Your task to perform on an android device: What's the weather today? Image 0: 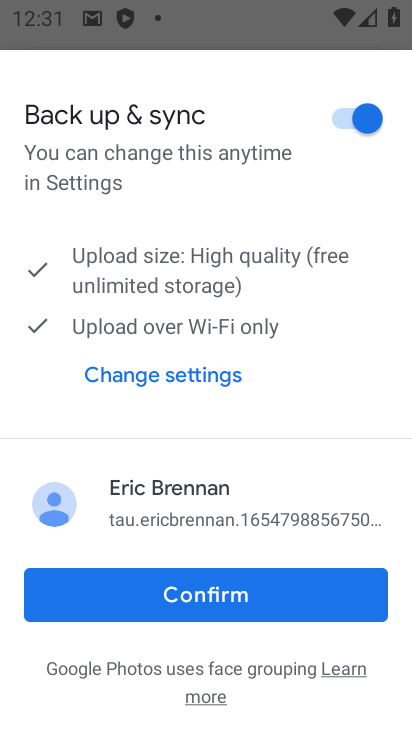
Step 0: press home button
Your task to perform on an android device: What's the weather today? Image 1: 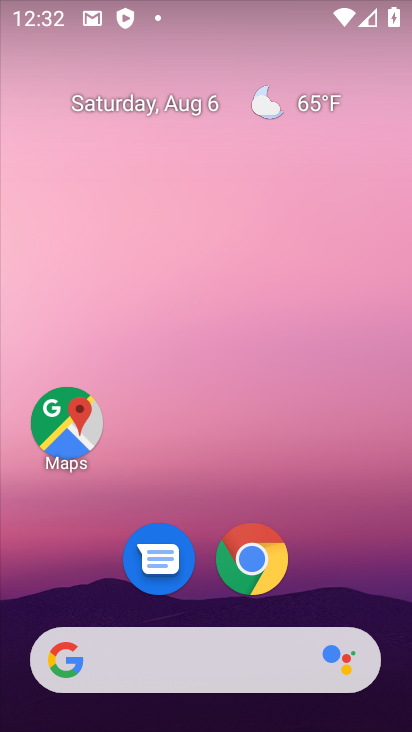
Step 1: click (99, 665)
Your task to perform on an android device: What's the weather today? Image 2: 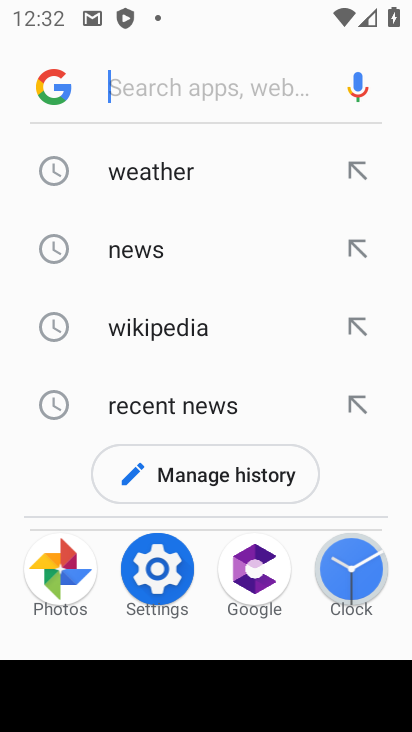
Step 2: type "What's the weather today?"
Your task to perform on an android device: What's the weather today? Image 3: 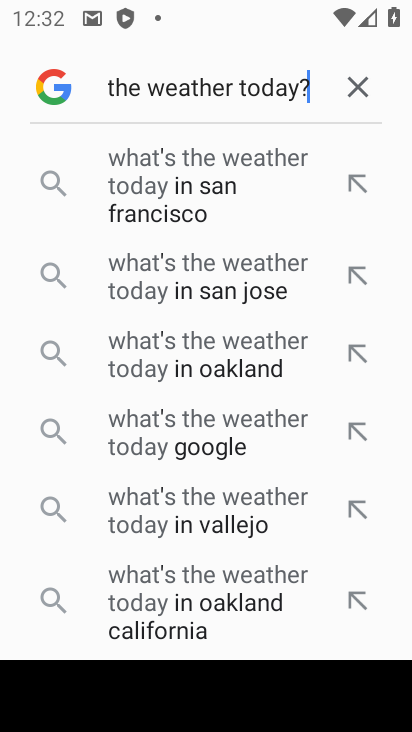
Step 3: press enter
Your task to perform on an android device: What's the weather today? Image 4: 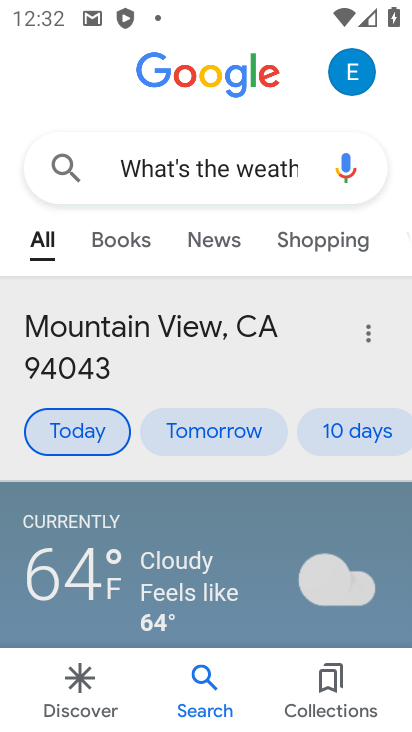
Step 4: task complete